Your task to perform on an android device: Go to eBay Image 0: 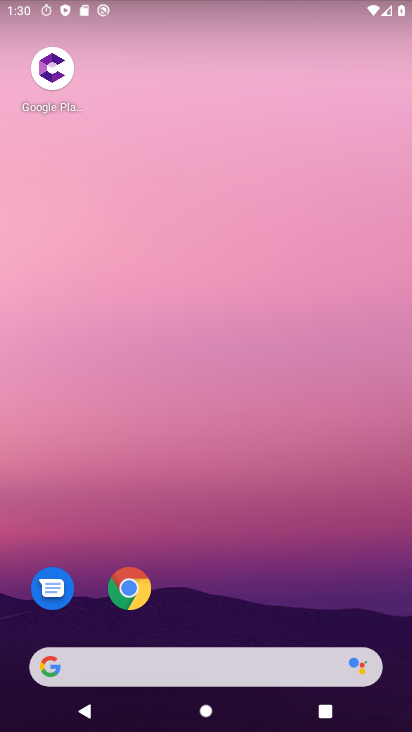
Step 0: drag from (183, 485) to (229, 145)
Your task to perform on an android device: Go to eBay Image 1: 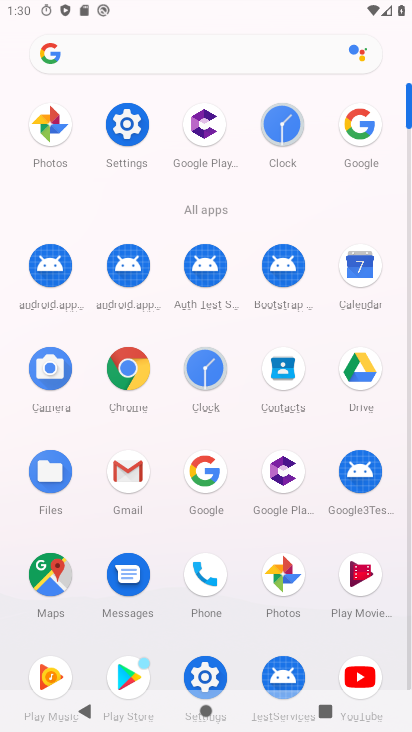
Step 1: click (121, 374)
Your task to perform on an android device: Go to eBay Image 2: 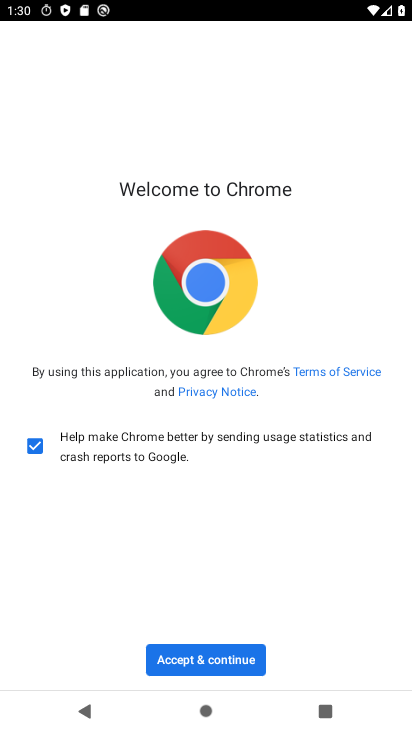
Step 2: click (201, 665)
Your task to perform on an android device: Go to eBay Image 3: 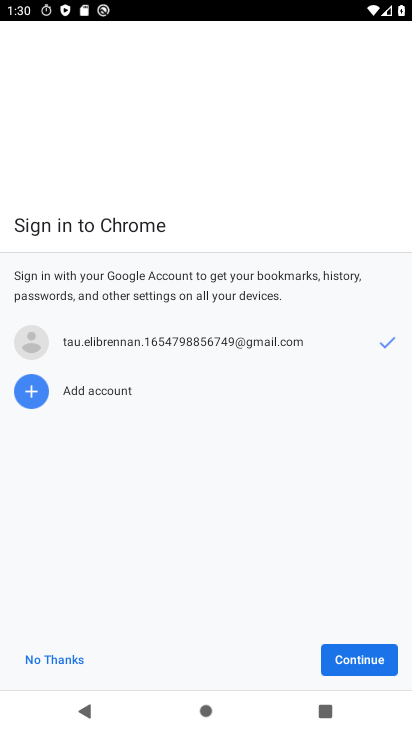
Step 3: click (339, 660)
Your task to perform on an android device: Go to eBay Image 4: 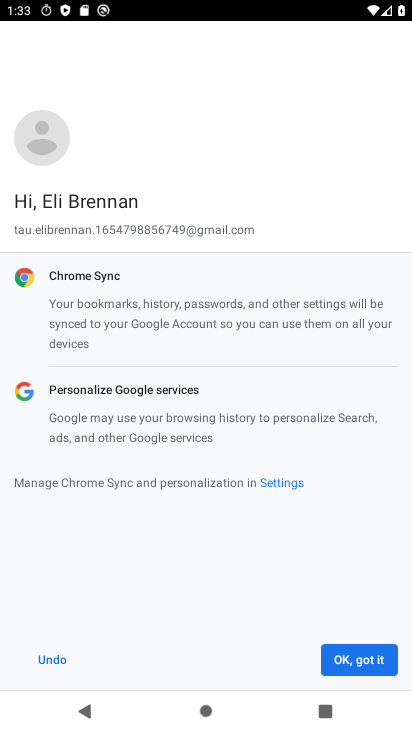
Step 4: click (357, 659)
Your task to perform on an android device: Go to eBay Image 5: 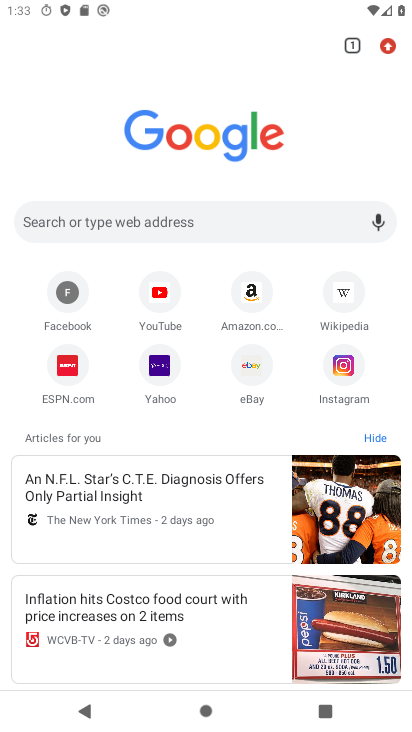
Step 5: click (265, 362)
Your task to perform on an android device: Go to eBay Image 6: 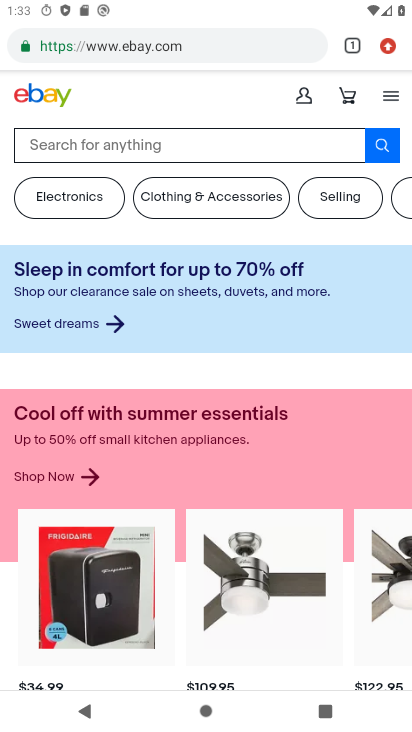
Step 6: task complete